Your task to perform on an android device: Go to settings Image 0: 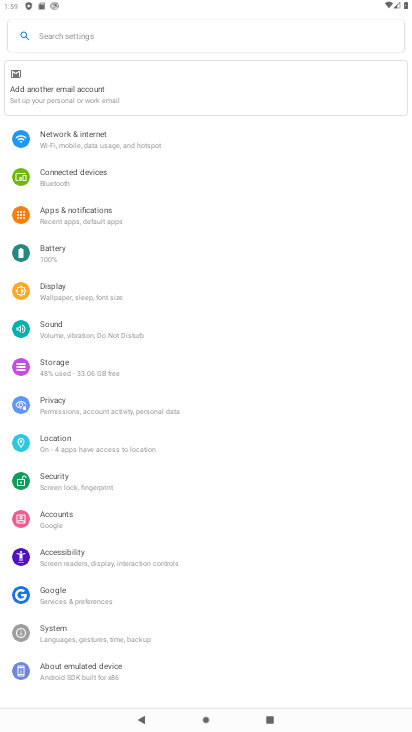
Step 0: task complete